Your task to perform on an android device: open a new tab in the chrome app Image 0: 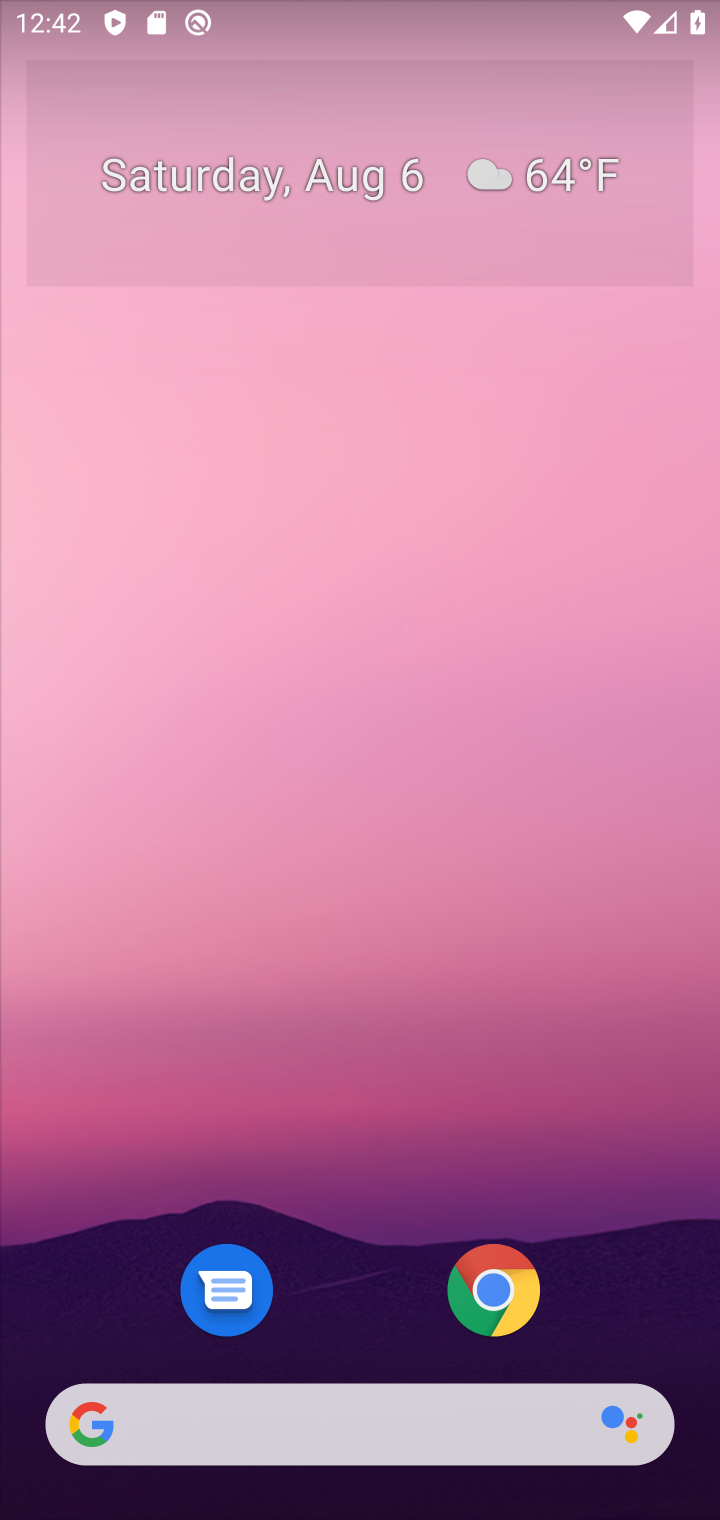
Step 0: drag from (383, 824) to (322, 122)
Your task to perform on an android device: open a new tab in the chrome app Image 1: 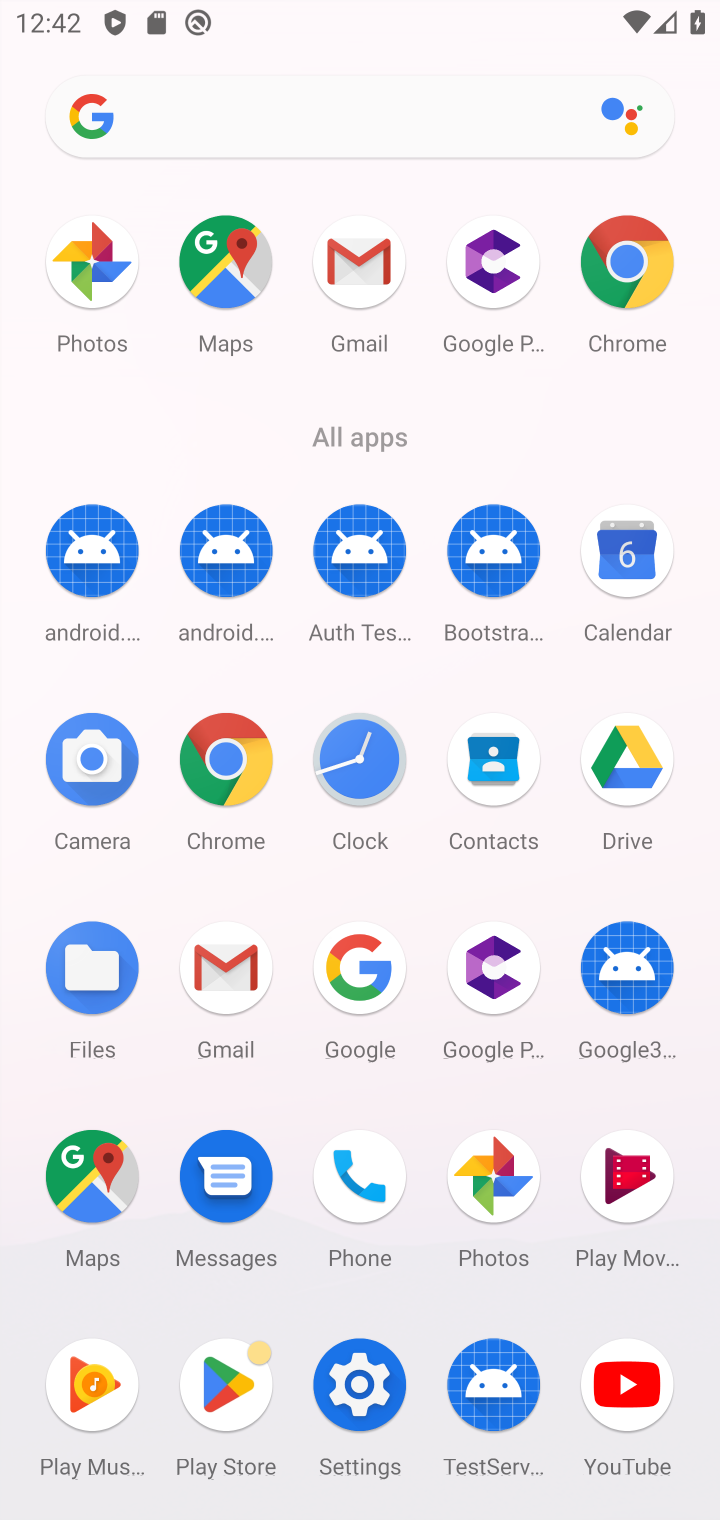
Step 1: click (620, 243)
Your task to perform on an android device: open a new tab in the chrome app Image 2: 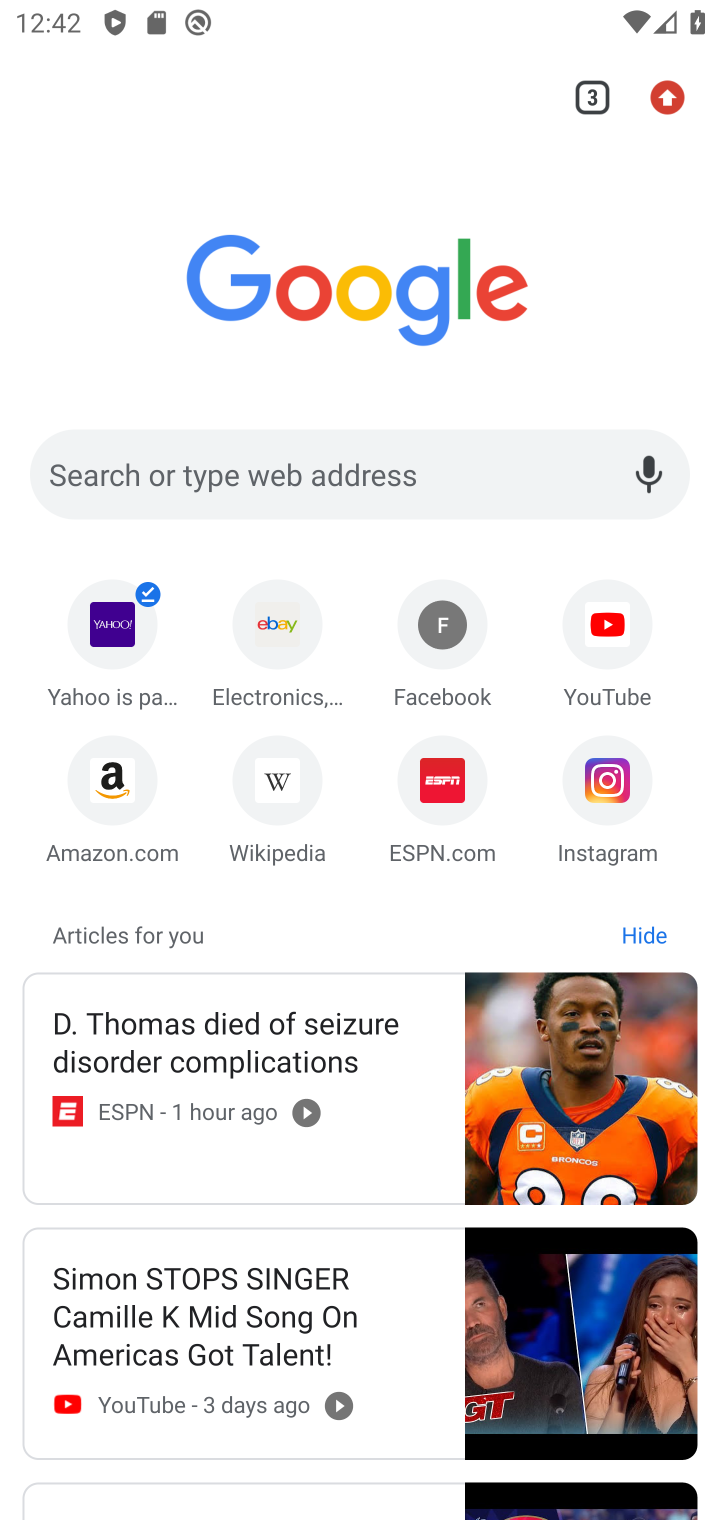
Step 2: click (564, 88)
Your task to perform on an android device: open a new tab in the chrome app Image 3: 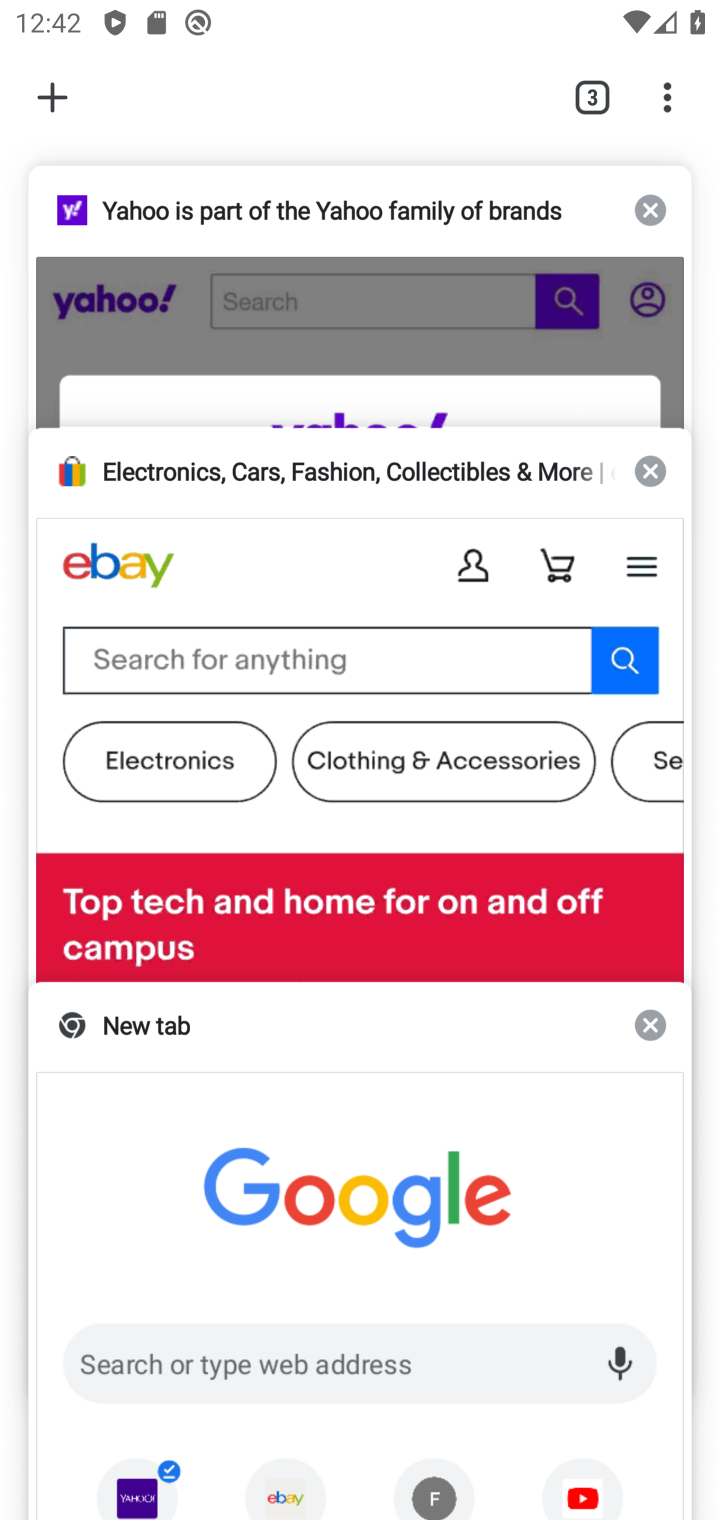
Step 3: click (57, 94)
Your task to perform on an android device: open a new tab in the chrome app Image 4: 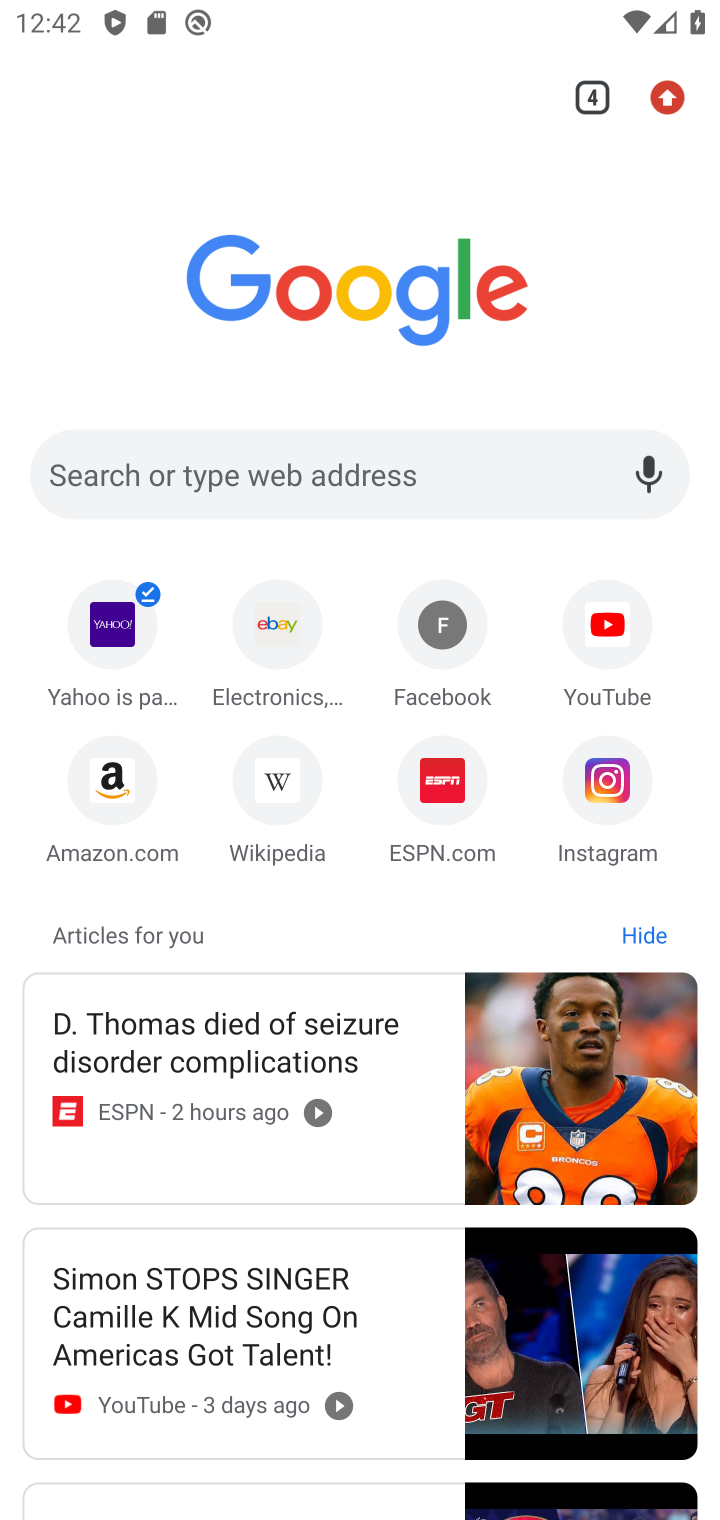
Step 4: task complete